Your task to perform on an android device: toggle improve location accuracy Image 0: 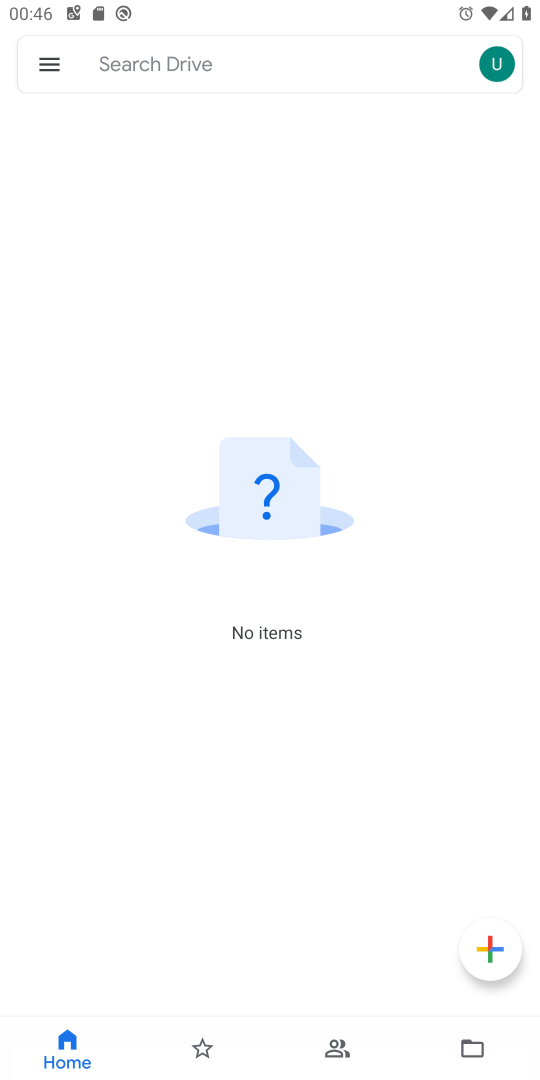
Step 0: press home button
Your task to perform on an android device: toggle improve location accuracy Image 1: 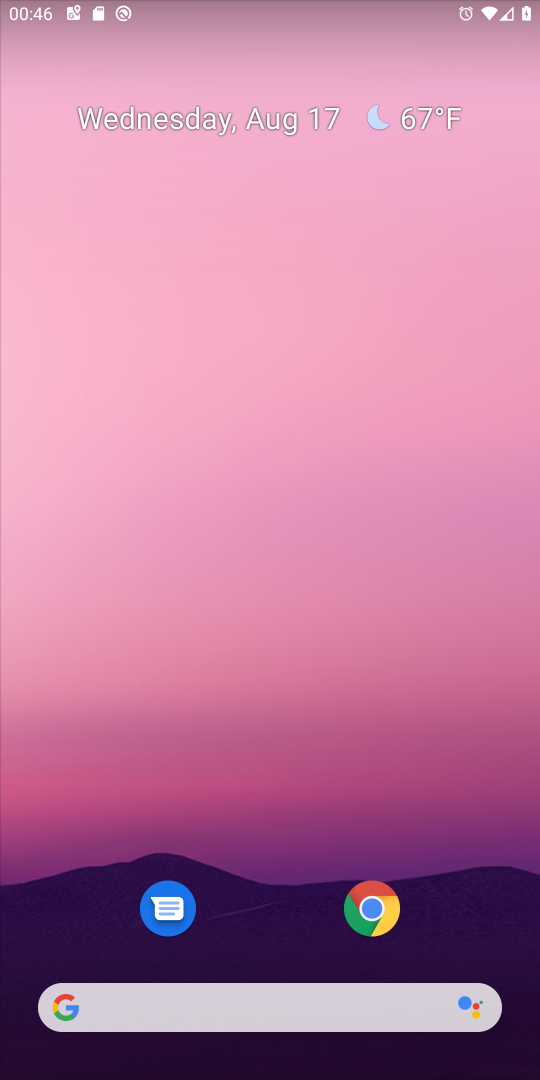
Step 1: drag from (293, 718) to (279, 306)
Your task to perform on an android device: toggle improve location accuracy Image 2: 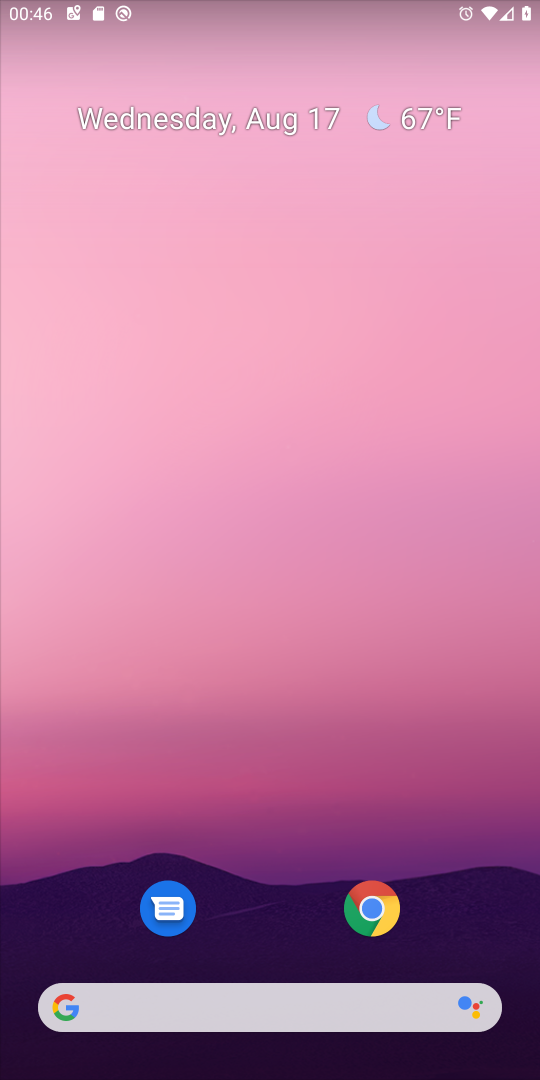
Step 2: drag from (261, 917) to (268, 241)
Your task to perform on an android device: toggle improve location accuracy Image 3: 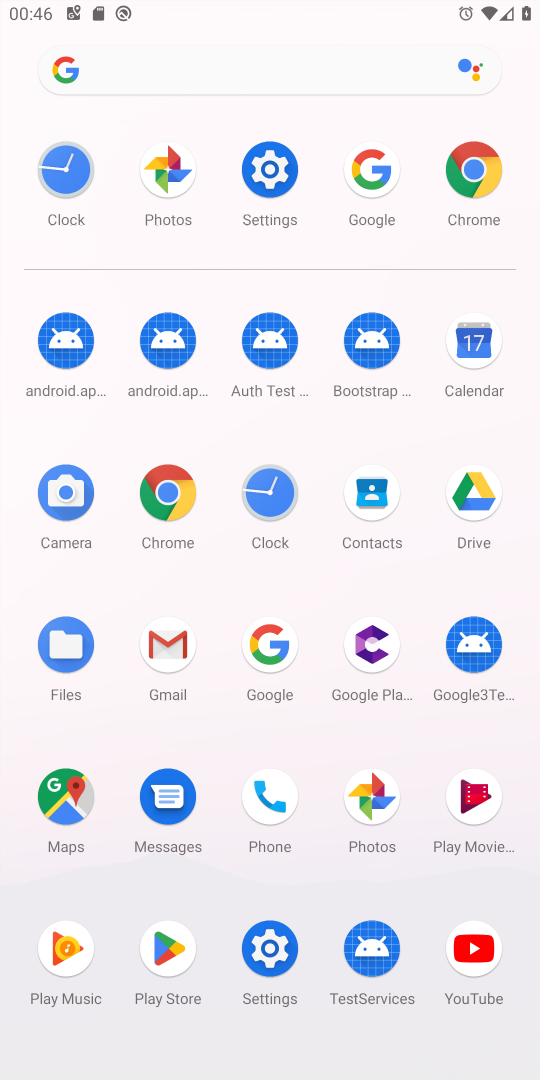
Step 3: click (260, 203)
Your task to perform on an android device: toggle improve location accuracy Image 4: 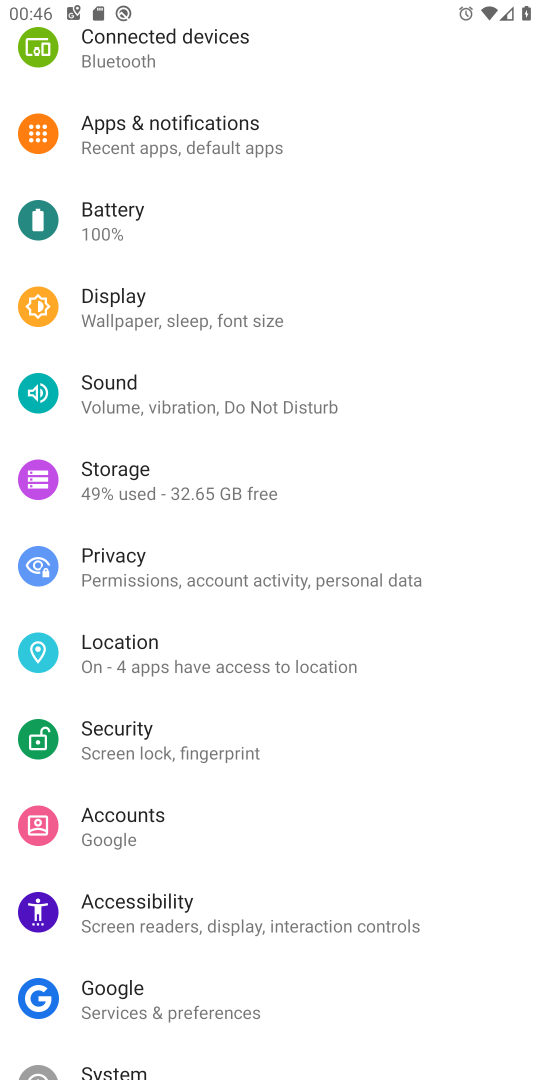
Step 4: click (178, 661)
Your task to perform on an android device: toggle improve location accuracy Image 5: 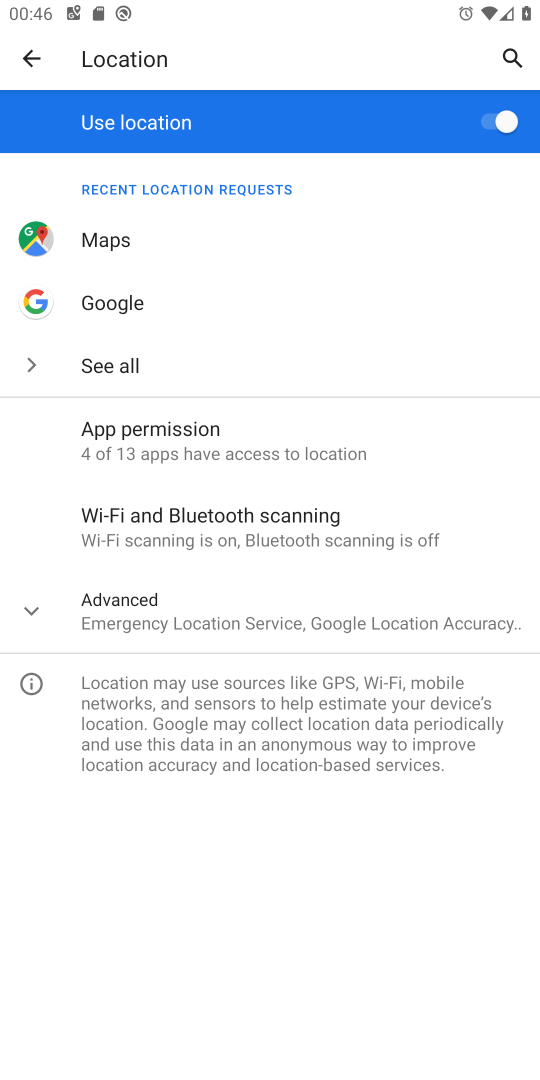
Step 5: click (163, 610)
Your task to perform on an android device: toggle improve location accuracy Image 6: 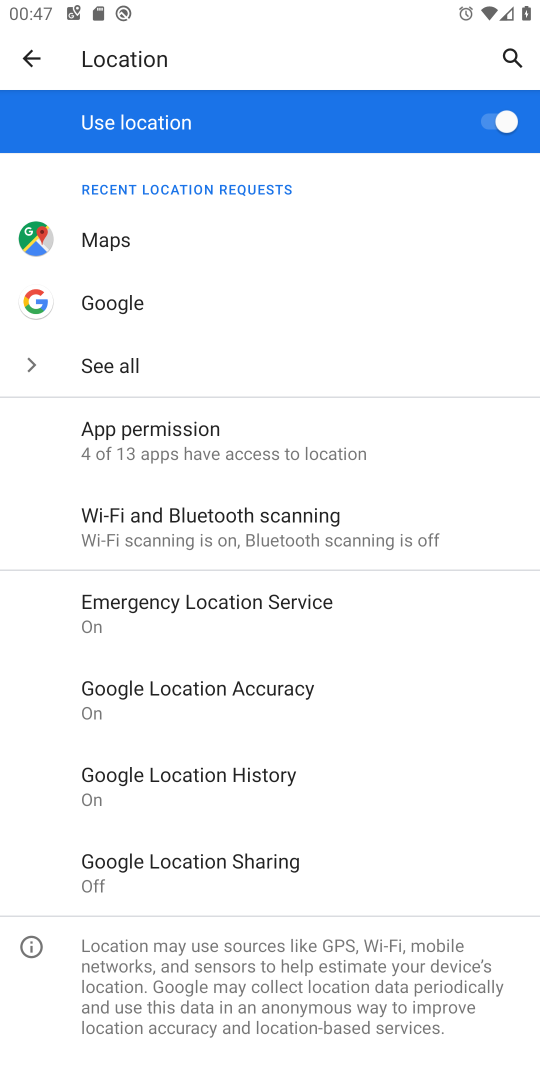
Step 6: click (229, 692)
Your task to perform on an android device: toggle improve location accuracy Image 7: 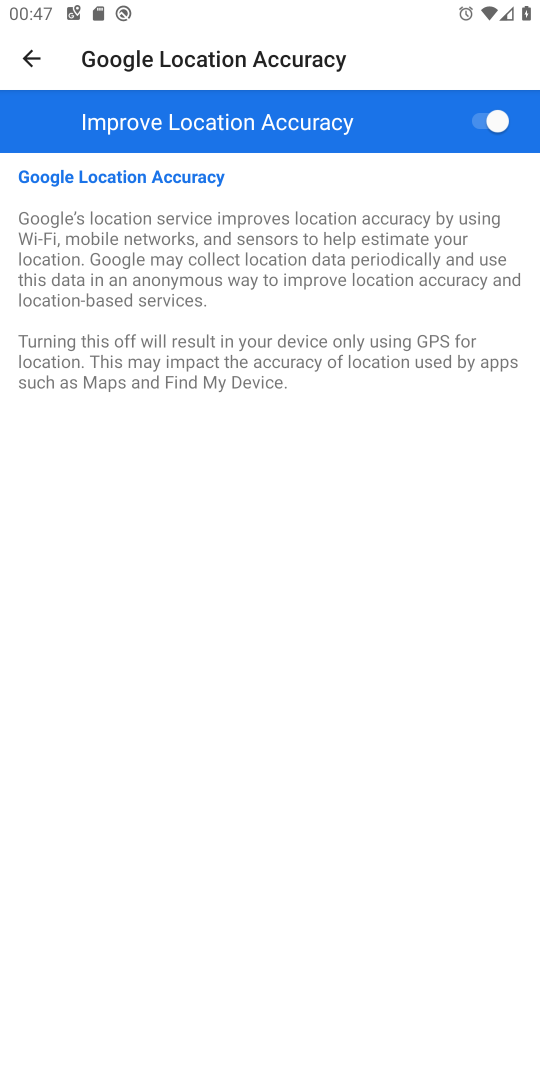
Step 7: click (476, 124)
Your task to perform on an android device: toggle improve location accuracy Image 8: 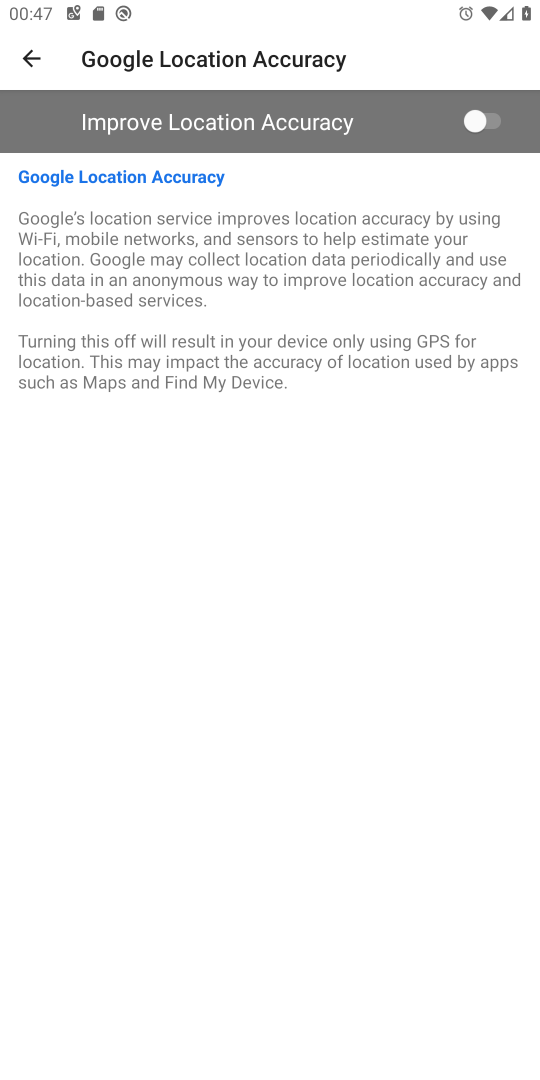
Step 8: task complete